Your task to perform on an android device: Open my contact list Image 0: 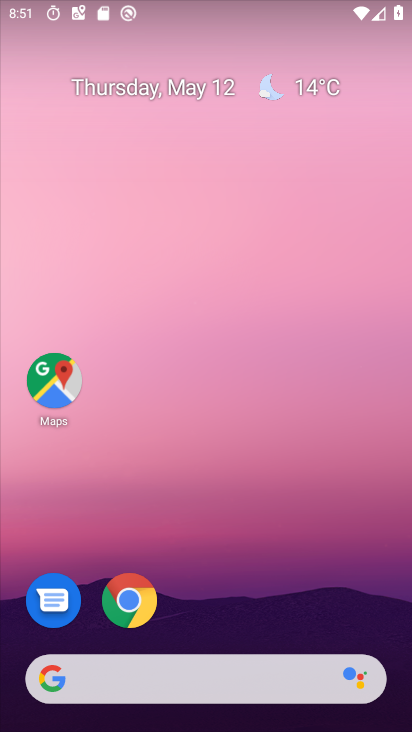
Step 0: drag from (390, 653) to (85, 19)
Your task to perform on an android device: Open my contact list Image 1: 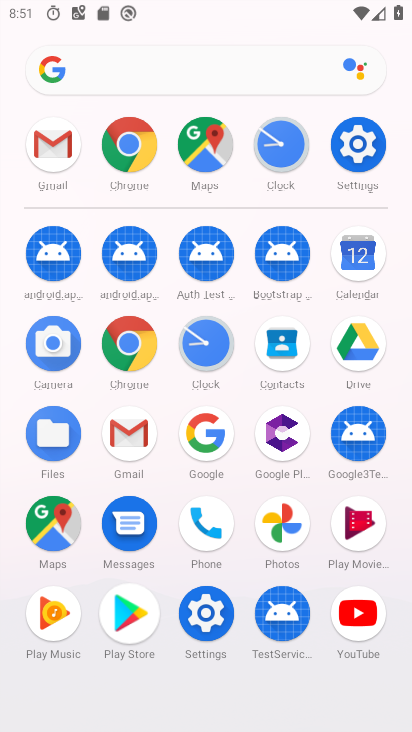
Step 1: click (289, 356)
Your task to perform on an android device: Open my contact list Image 2: 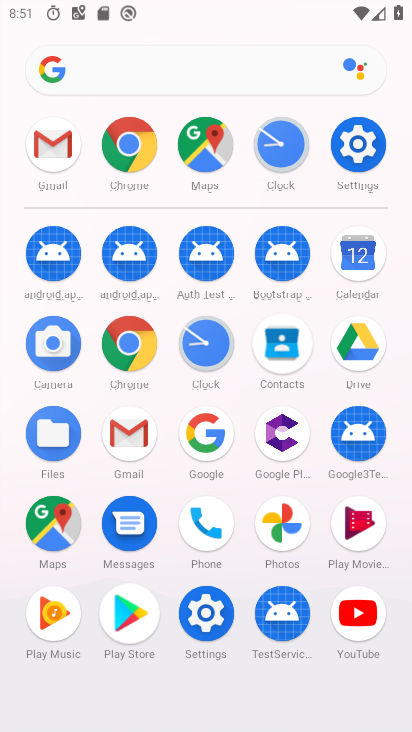
Step 2: click (289, 355)
Your task to perform on an android device: Open my contact list Image 3: 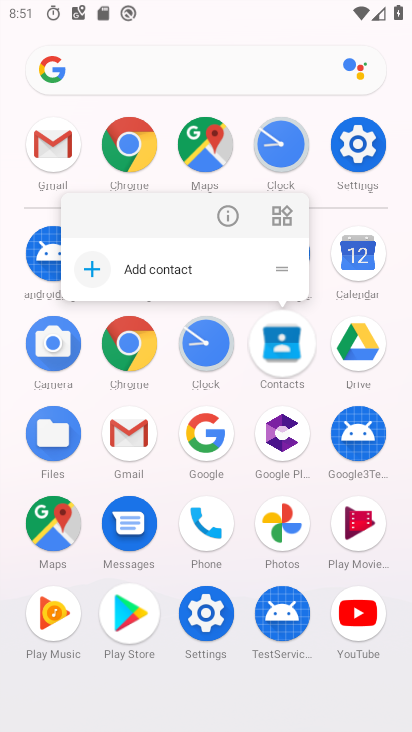
Step 3: click (289, 355)
Your task to perform on an android device: Open my contact list Image 4: 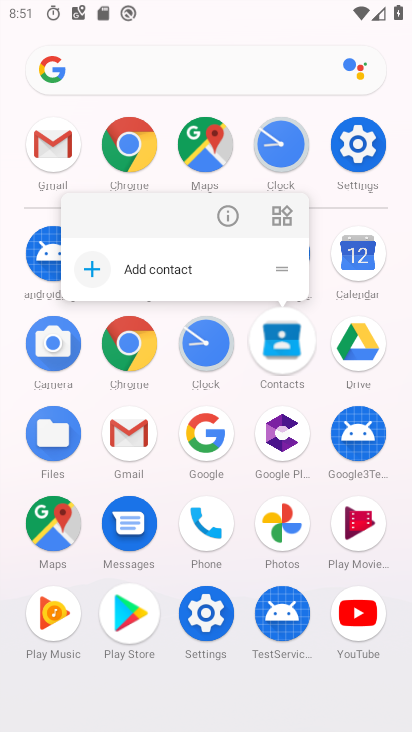
Step 4: click (289, 352)
Your task to perform on an android device: Open my contact list Image 5: 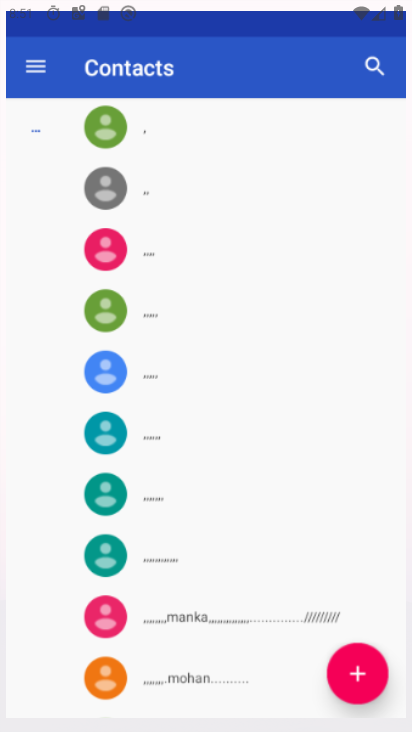
Step 5: click (288, 348)
Your task to perform on an android device: Open my contact list Image 6: 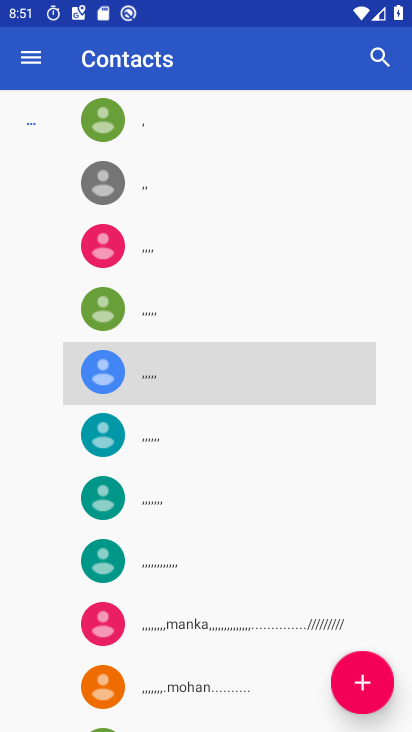
Step 6: click (288, 344)
Your task to perform on an android device: Open my contact list Image 7: 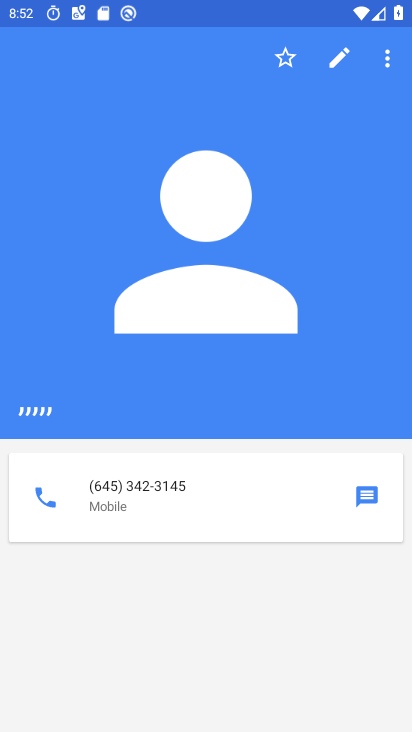
Step 7: press back button
Your task to perform on an android device: Open my contact list Image 8: 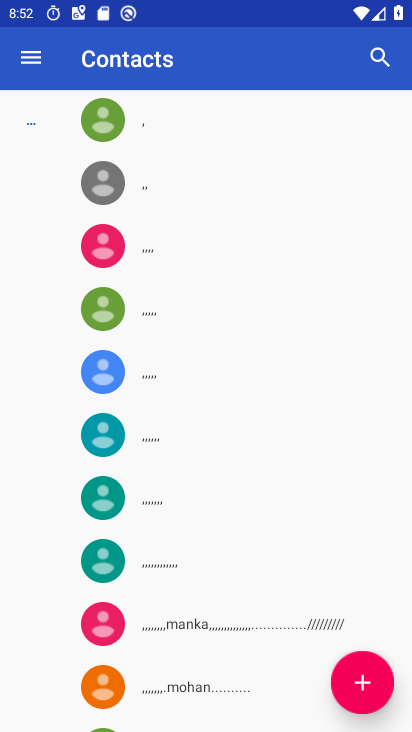
Step 8: click (345, 677)
Your task to perform on an android device: Open my contact list Image 9: 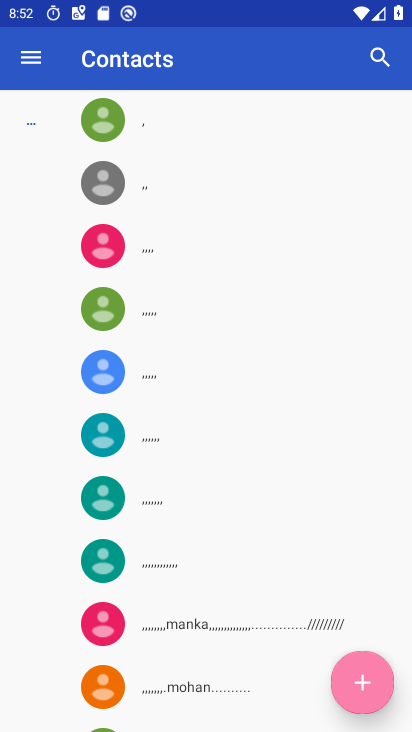
Step 9: click (345, 677)
Your task to perform on an android device: Open my contact list Image 10: 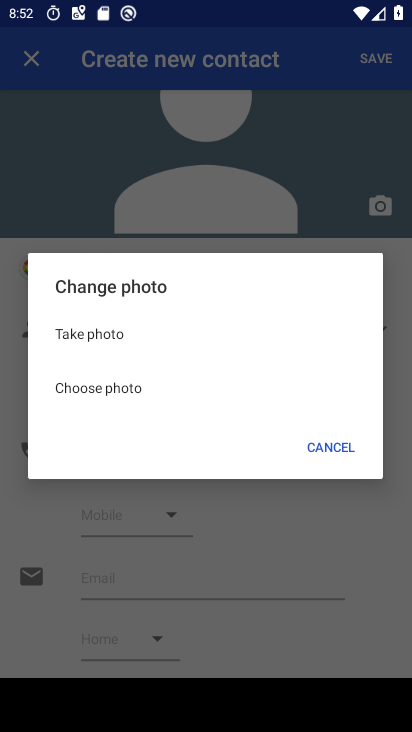
Step 10: click (307, 431)
Your task to perform on an android device: Open my contact list Image 11: 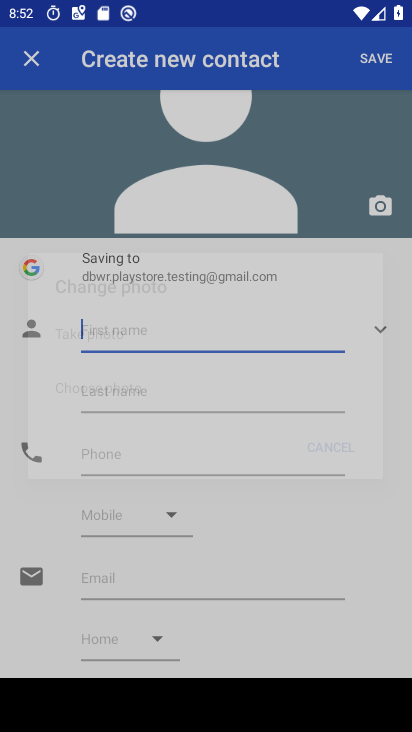
Step 11: click (334, 453)
Your task to perform on an android device: Open my contact list Image 12: 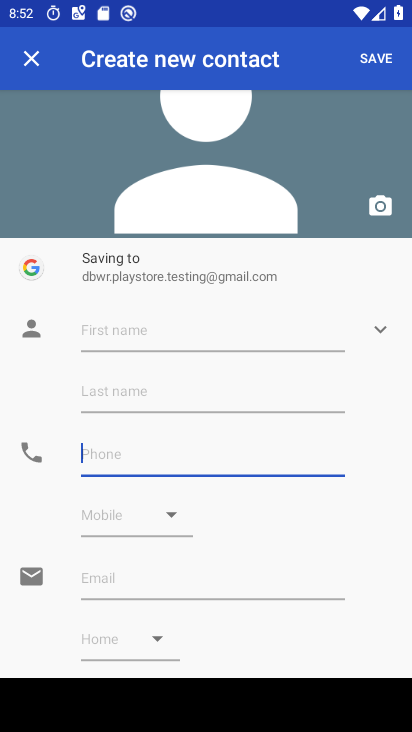
Step 12: click (43, 58)
Your task to perform on an android device: Open my contact list Image 13: 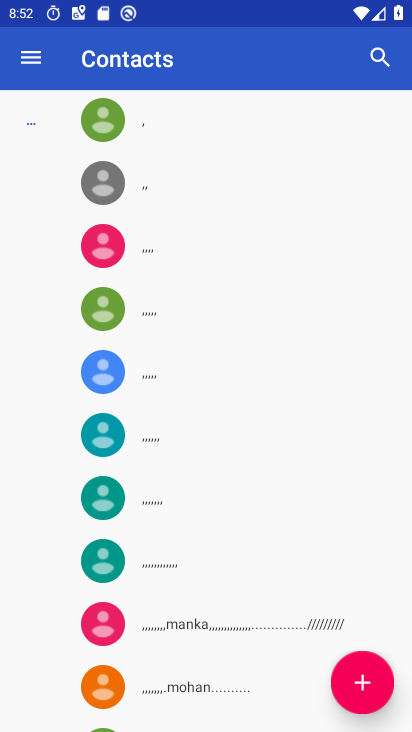
Step 13: task complete